Your task to perform on an android device: open the mobile data screen to see how much data has been used Image 0: 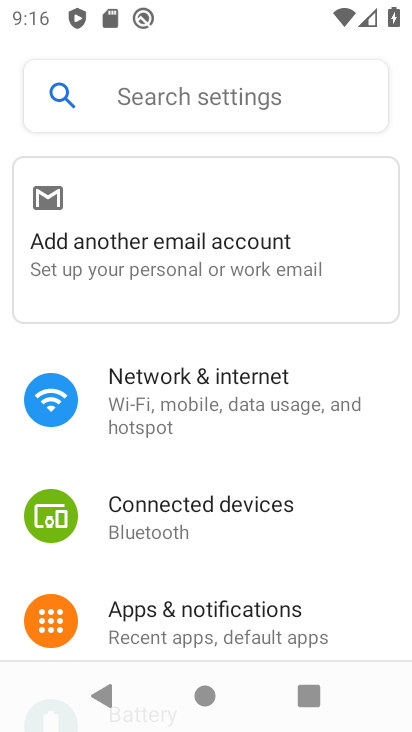
Step 0: click (194, 399)
Your task to perform on an android device: open the mobile data screen to see how much data has been used Image 1: 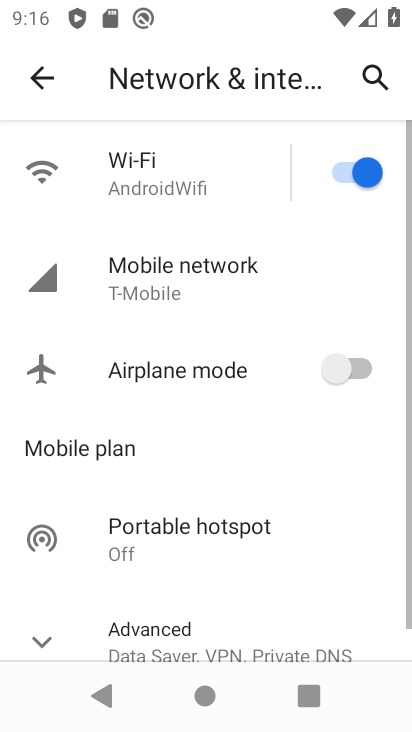
Step 1: click (142, 282)
Your task to perform on an android device: open the mobile data screen to see how much data has been used Image 2: 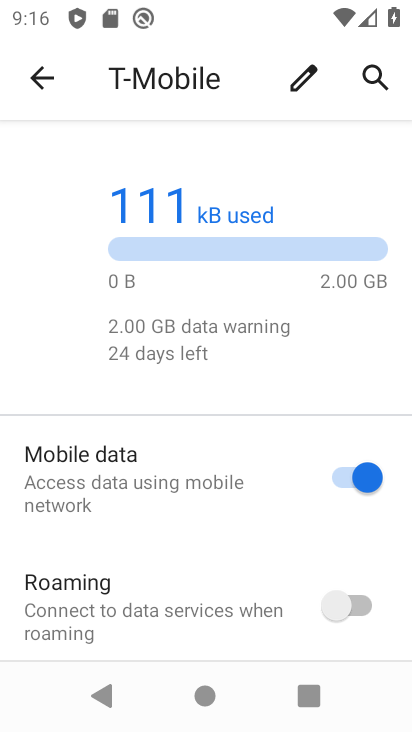
Step 2: task complete